Your task to perform on an android device: Find coffee shops on Maps Image 0: 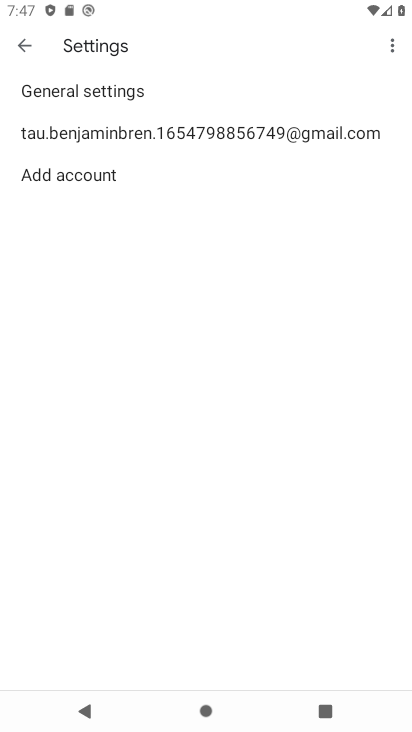
Step 0: press home button
Your task to perform on an android device: Find coffee shops on Maps Image 1: 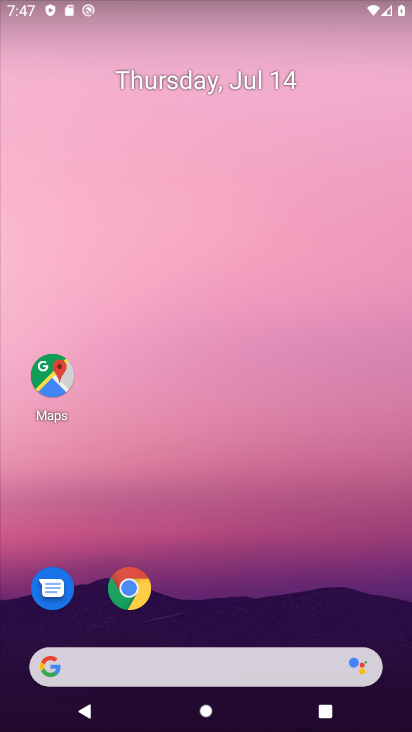
Step 1: drag from (293, 621) to (255, 81)
Your task to perform on an android device: Find coffee shops on Maps Image 2: 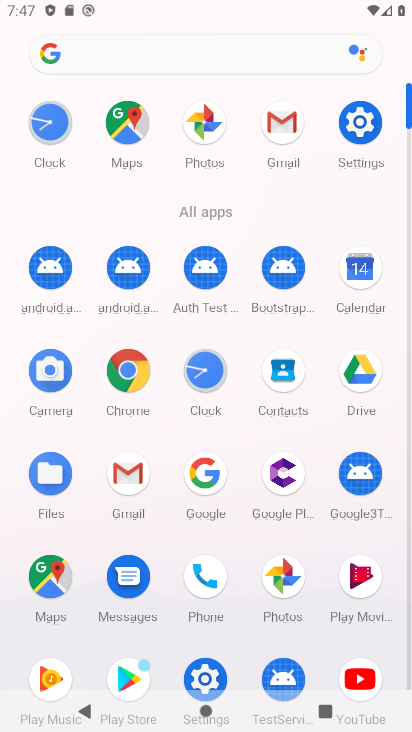
Step 2: click (126, 128)
Your task to perform on an android device: Find coffee shops on Maps Image 3: 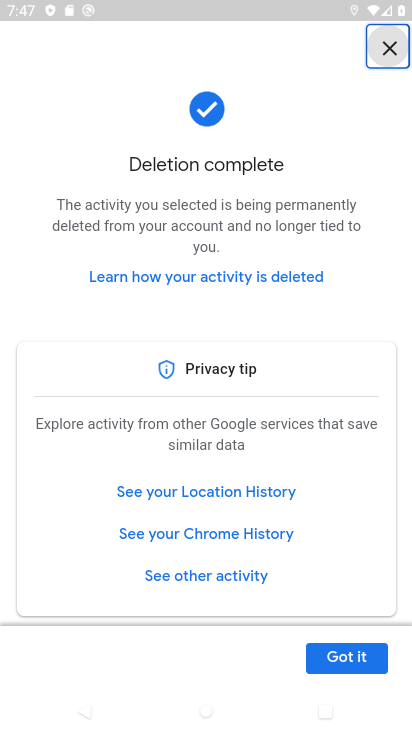
Step 3: click (341, 655)
Your task to perform on an android device: Find coffee shops on Maps Image 4: 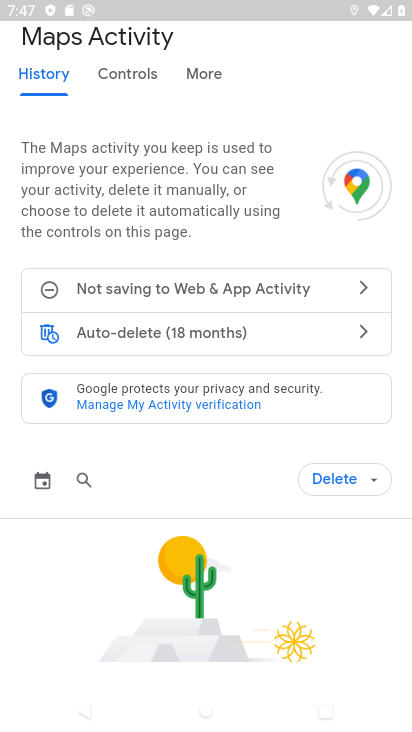
Step 4: press back button
Your task to perform on an android device: Find coffee shops on Maps Image 5: 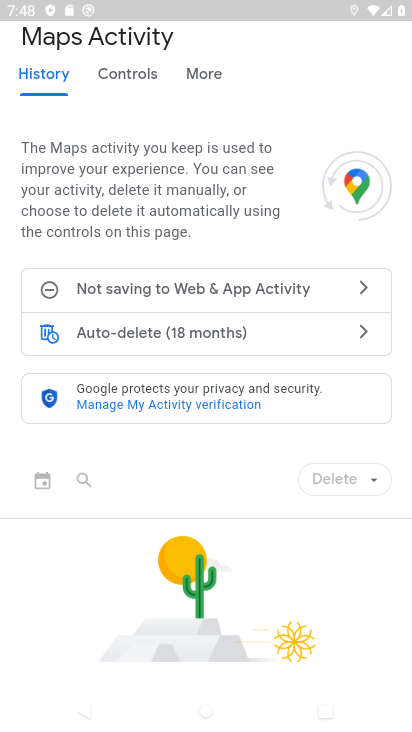
Step 5: press back button
Your task to perform on an android device: Find coffee shops on Maps Image 6: 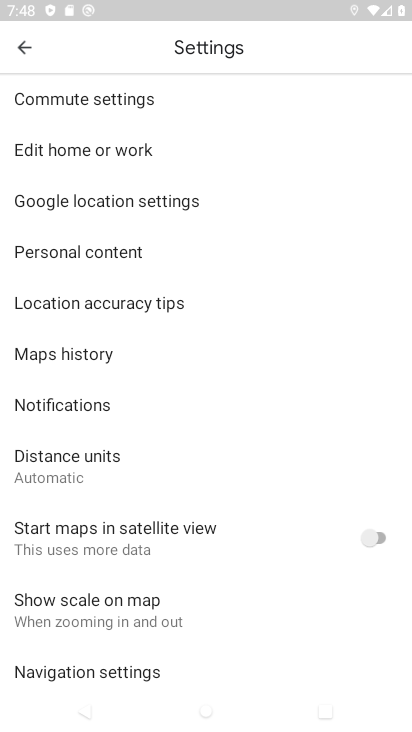
Step 6: press back button
Your task to perform on an android device: Find coffee shops on Maps Image 7: 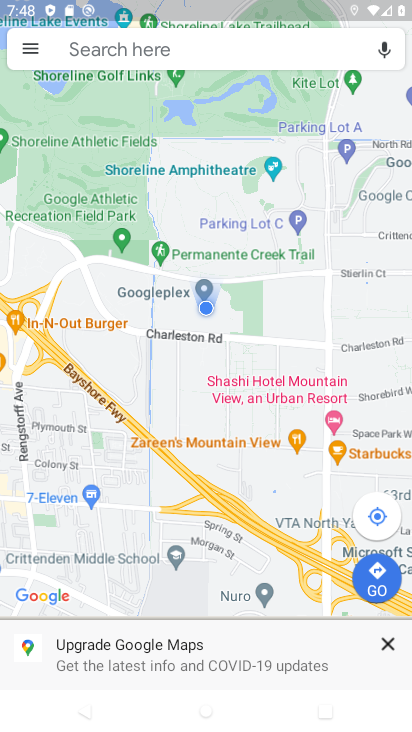
Step 7: click (206, 56)
Your task to perform on an android device: Find coffee shops on Maps Image 8: 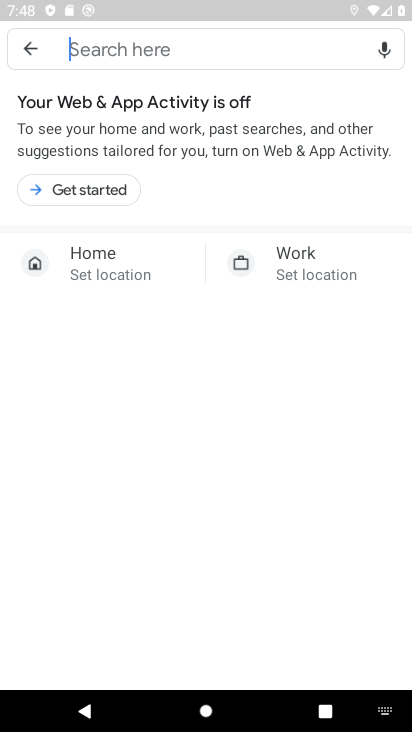
Step 8: type "coffee shops"
Your task to perform on an android device: Find coffee shops on Maps Image 9: 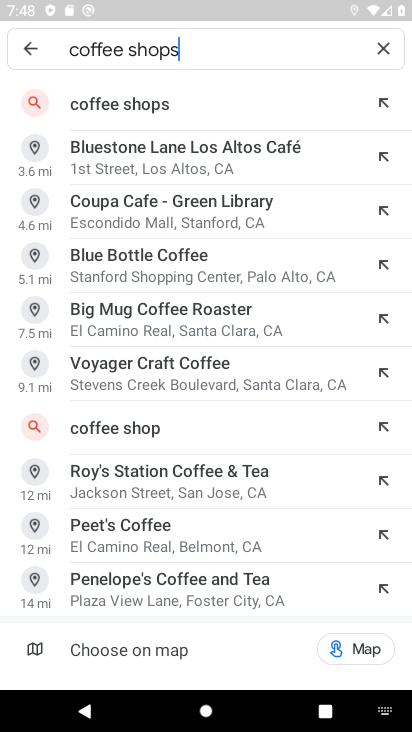
Step 9: click (206, 106)
Your task to perform on an android device: Find coffee shops on Maps Image 10: 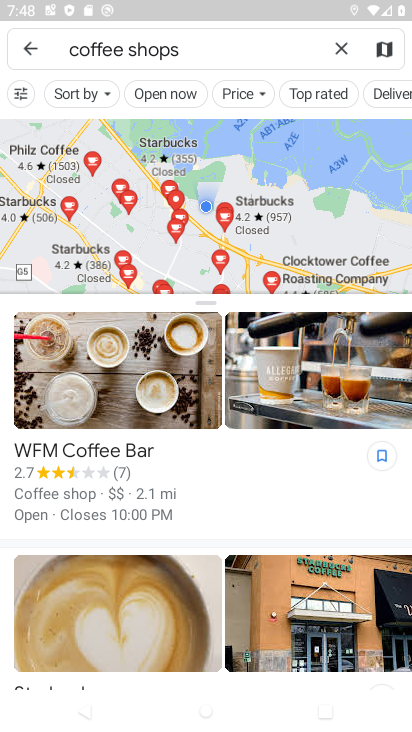
Step 10: task complete